Your task to perform on an android device: Go to ESPN.com Image 0: 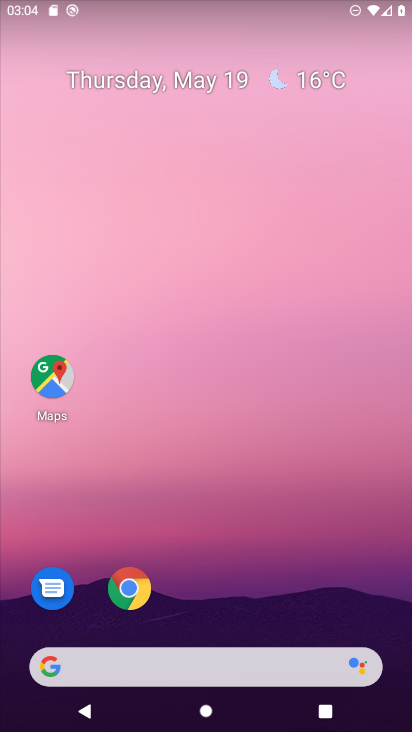
Step 0: click (133, 593)
Your task to perform on an android device: Go to ESPN.com Image 1: 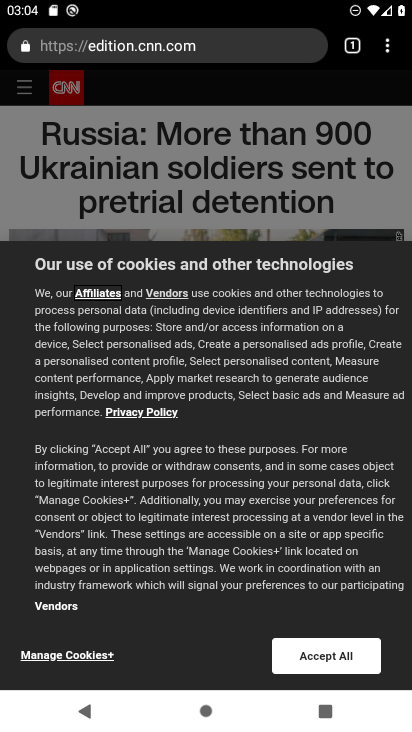
Step 1: click (118, 55)
Your task to perform on an android device: Go to ESPN.com Image 2: 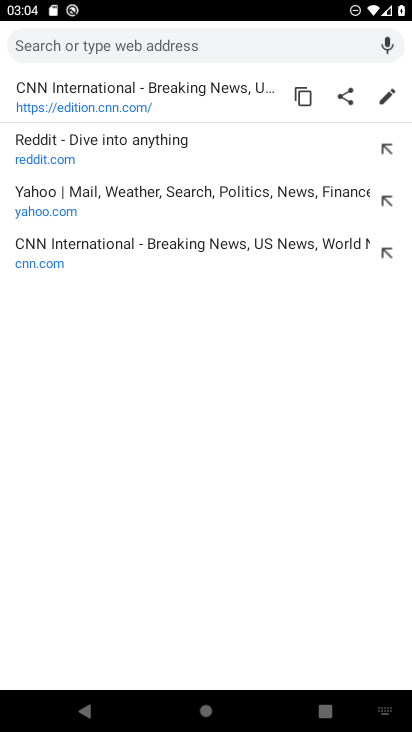
Step 2: type "espn.com"
Your task to perform on an android device: Go to ESPN.com Image 3: 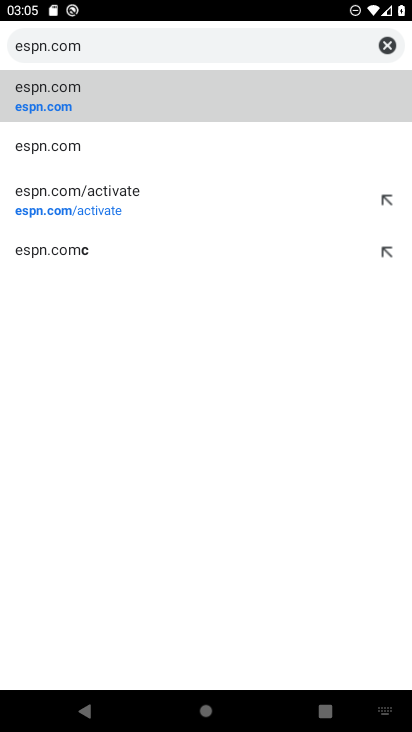
Step 3: click (82, 106)
Your task to perform on an android device: Go to ESPN.com Image 4: 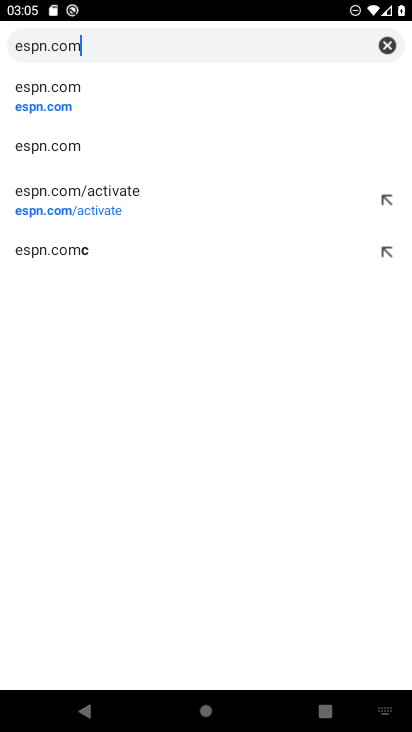
Step 4: click (42, 107)
Your task to perform on an android device: Go to ESPN.com Image 5: 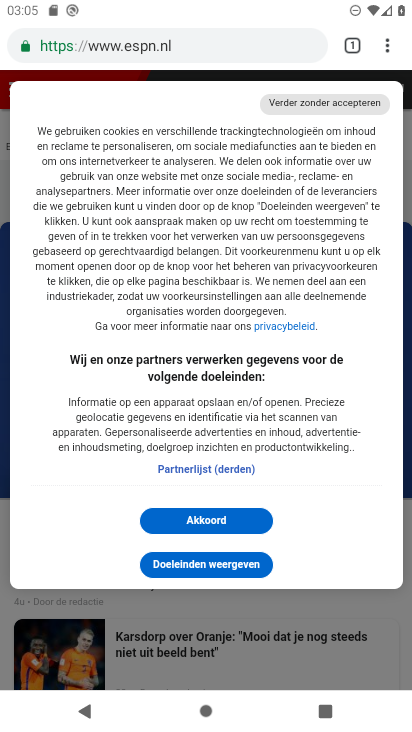
Step 5: task complete